Your task to perform on an android device: turn on notifications settings in the gmail app Image 0: 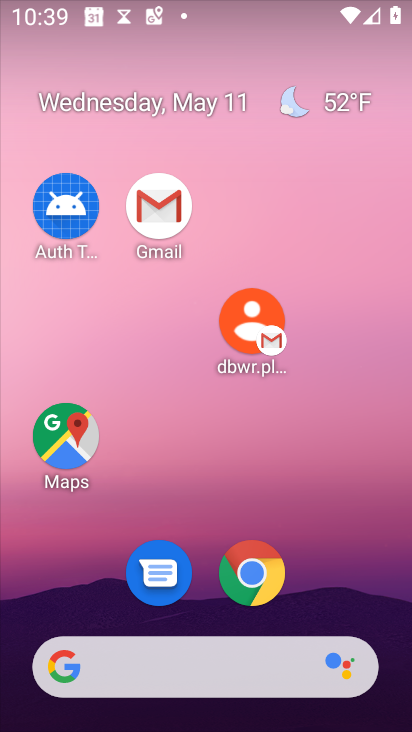
Step 0: drag from (350, 603) to (171, 162)
Your task to perform on an android device: turn on notifications settings in the gmail app Image 1: 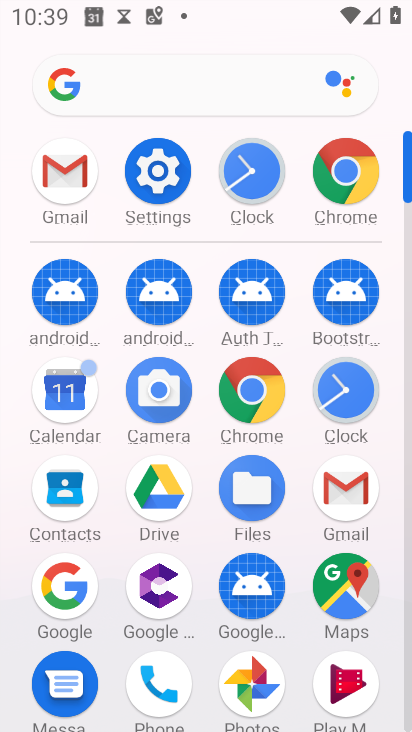
Step 1: click (335, 474)
Your task to perform on an android device: turn on notifications settings in the gmail app Image 2: 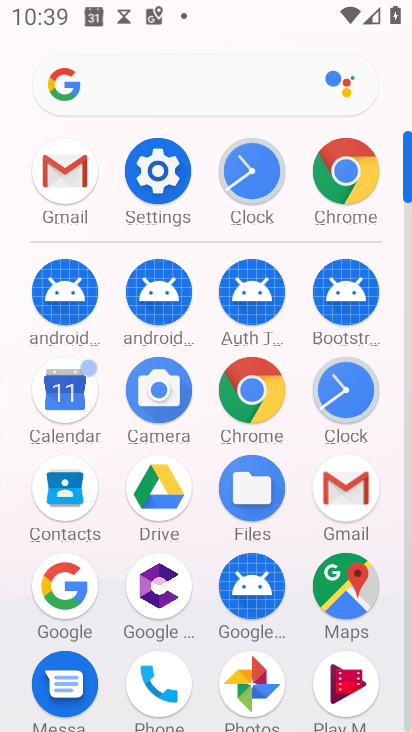
Step 2: click (335, 474)
Your task to perform on an android device: turn on notifications settings in the gmail app Image 3: 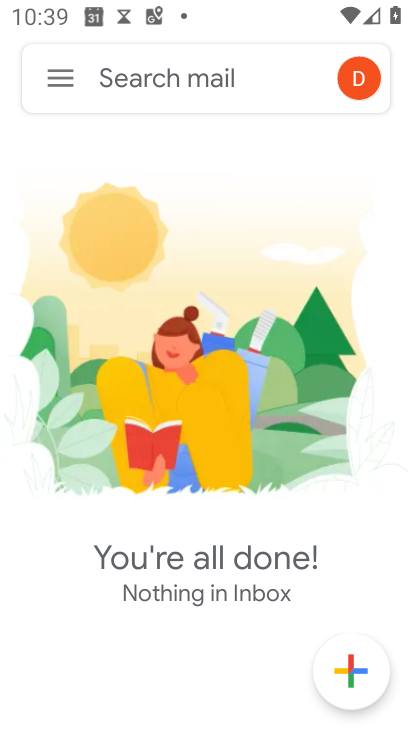
Step 3: click (54, 78)
Your task to perform on an android device: turn on notifications settings in the gmail app Image 4: 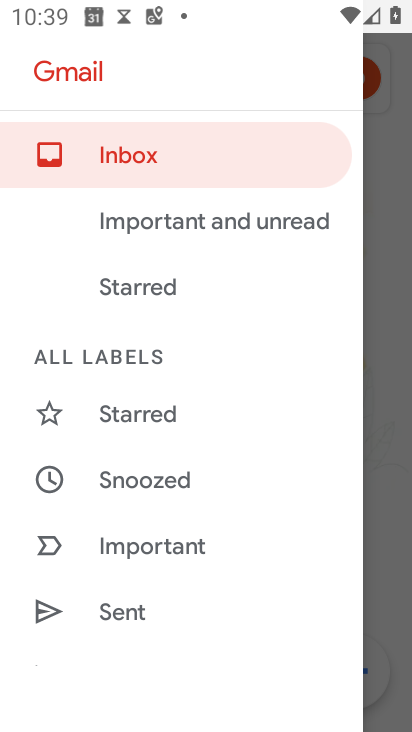
Step 4: drag from (219, 548) to (158, 266)
Your task to perform on an android device: turn on notifications settings in the gmail app Image 5: 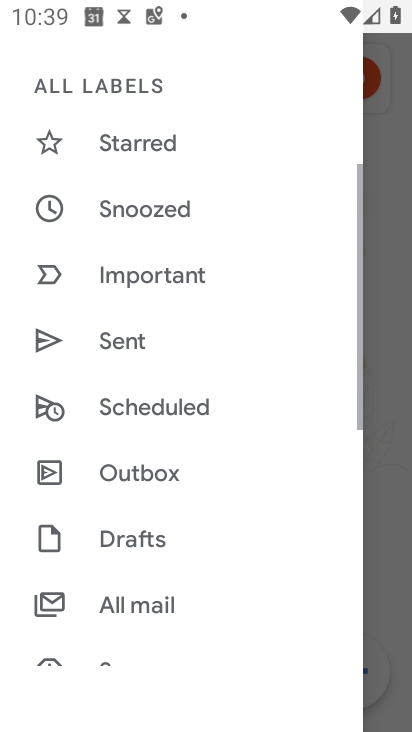
Step 5: drag from (203, 113) to (205, 172)
Your task to perform on an android device: turn on notifications settings in the gmail app Image 6: 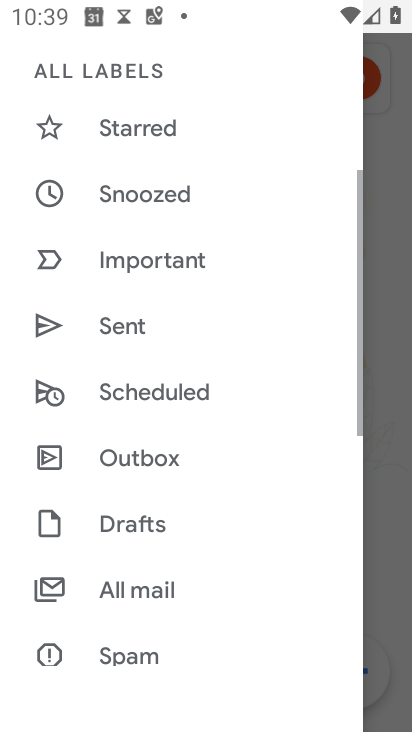
Step 6: drag from (222, 483) to (227, 168)
Your task to perform on an android device: turn on notifications settings in the gmail app Image 7: 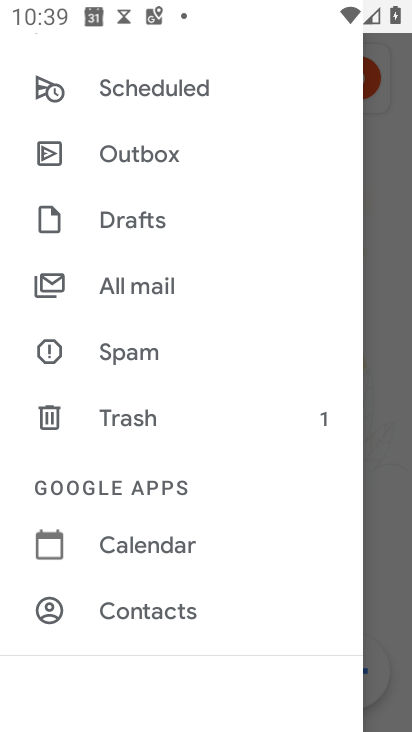
Step 7: drag from (183, 502) to (188, 87)
Your task to perform on an android device: turn on notifications settings in the gmail app Image 8: 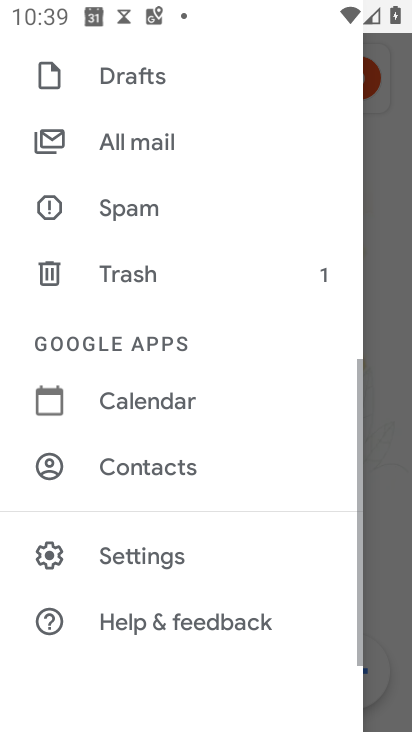
Step 8: drag from (220, 377) to (233, 151)
Your task to perform on an android device: turn on notifications settings in the gmail app Image 9: 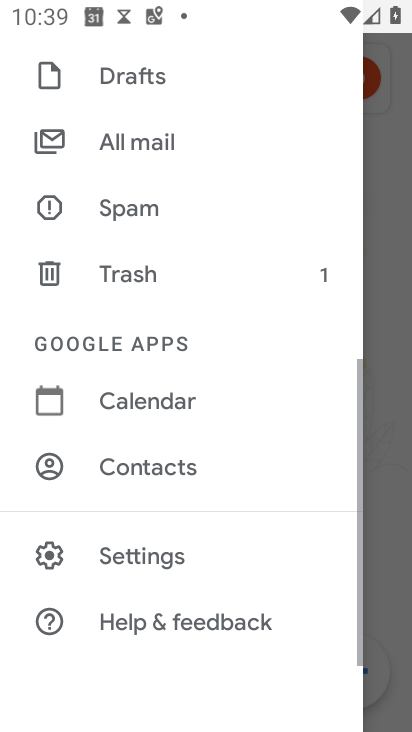
Step 9: click (147, 544)
Your task to perform on an android device: turn on notifications settings in the gmail app Image 10: 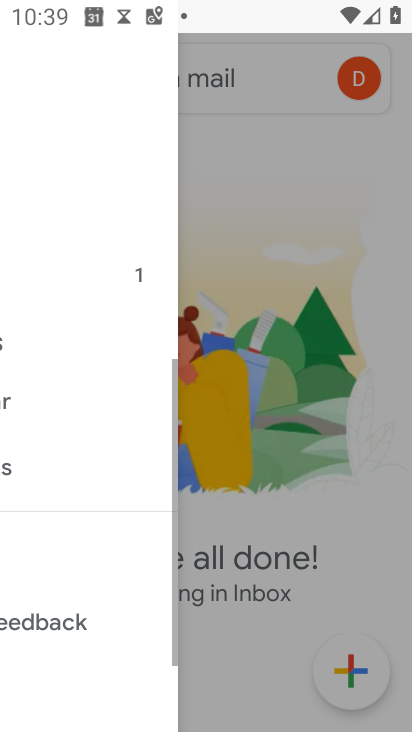
Step 10: click (147, 545)
Your task to perform on an android device: turn on notifications settings in the gmail app Image 11: 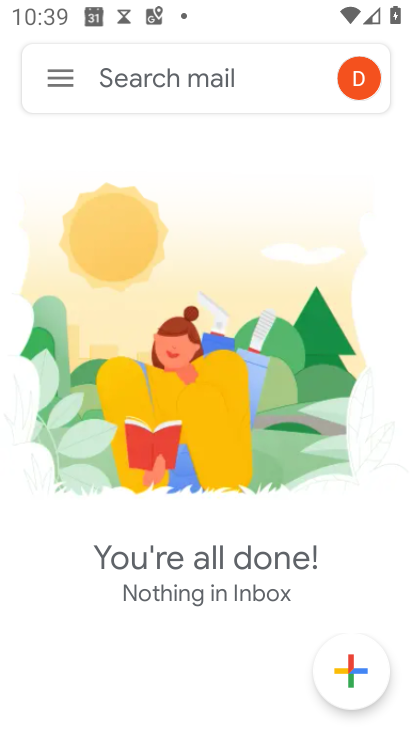
Step 11: click (147, 545)
Your task to perform on an android device: turn on notifications settings in the gmail app Image 12: 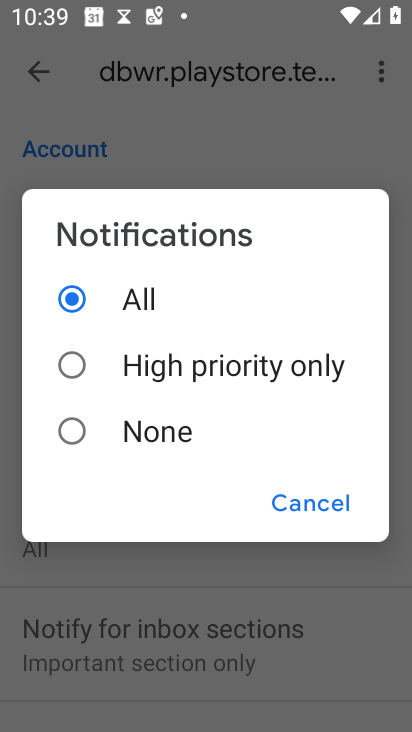
Step 12: click (320, 501)
Your task to perform on an android device: turn on notifications settings in the gmail app Image 13: 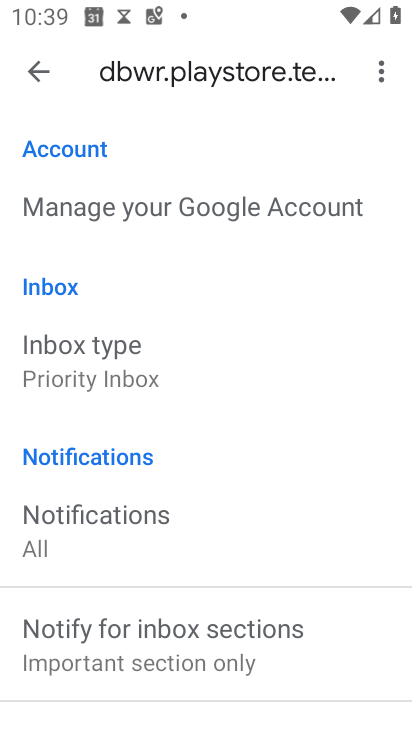
Step 13: task complete